Your task to perform on an android device: add a contact in the contacts app Image 0: 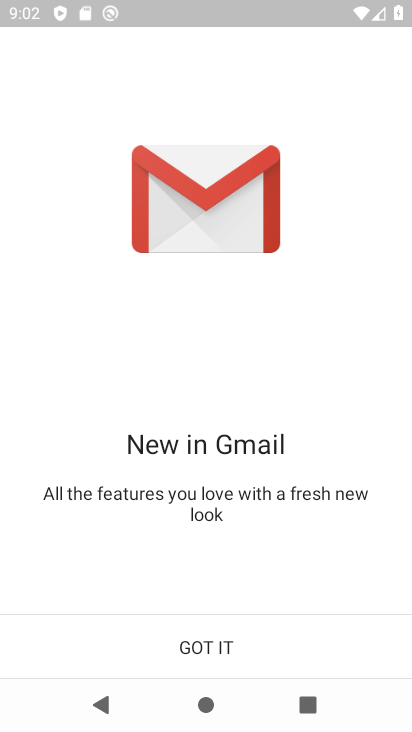
Step 0: click (327, 541)
Your task to perform on an android device: add a contact in the contacts app Image 1: 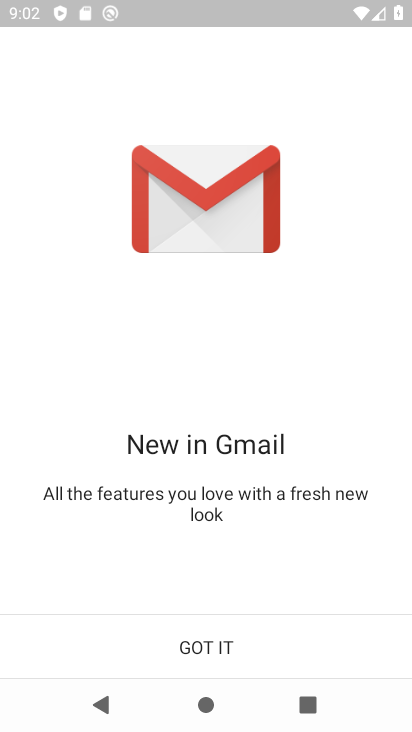
Step 1: click (203, 669)
Your task to perform on an android device: add a contact in the contacts app Image 2: 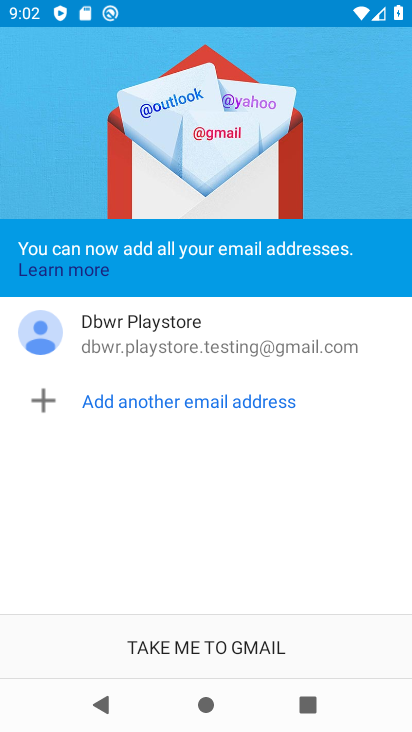
Step 2: press home button
Your task to perform on an android device: add a contact in the contacts app Image 3: 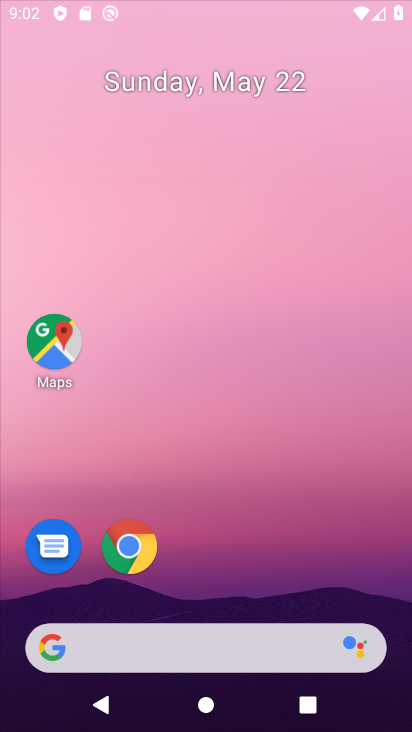
Step 3: drag from (207, 643) to (257, 35)
Your task to perform on an android device: add a contact in the contacts app Image 4: 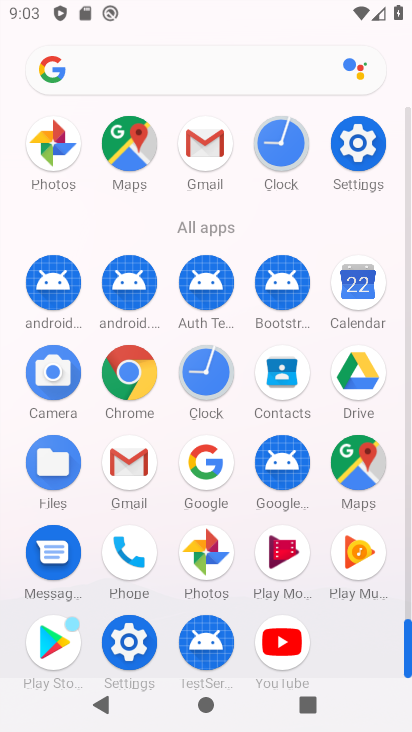
Step 4: click (273, 371)
Your task to perform on an android device: add a contact in the contacts app Image 5: 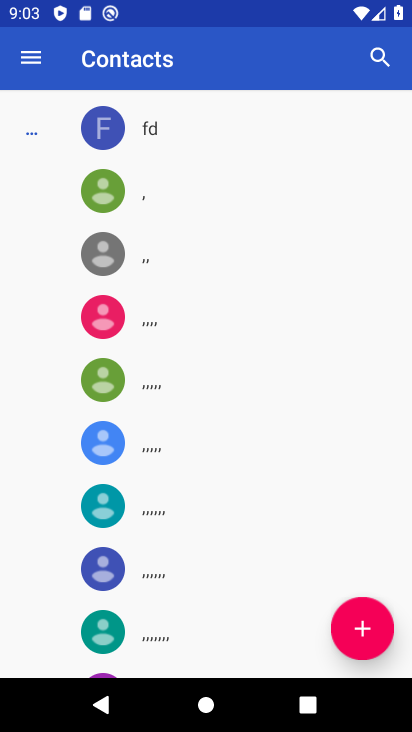
Step 5: drag from (190, 613) to (280, 172)
Your task to perform on an android device: add a contact in the contacts app Image 6: 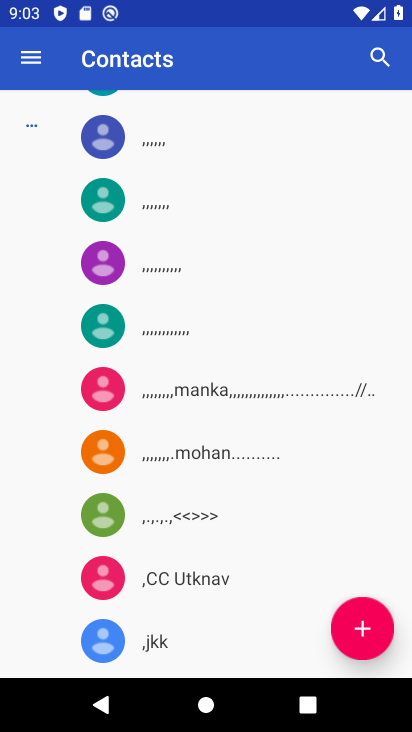
Step 6: click (361, 612)
Your task to perform on an android device: add a contact in the contacts app Image 7: 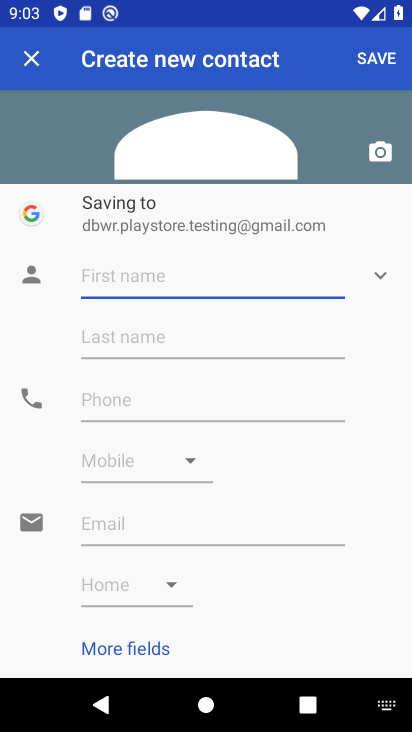
Step 7: click (156, 270)
Your task to perform on an android device: add a contact in the contacts app Image 8: 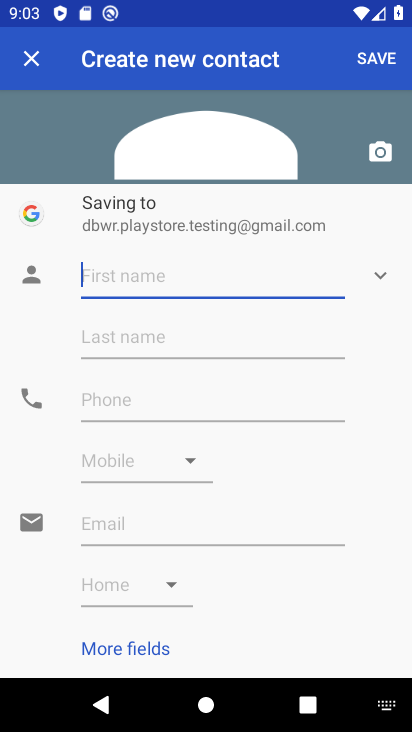
Step 8: type "bfjm"
Your task to perform on an android device: add a contact in the contacts app Image 9: 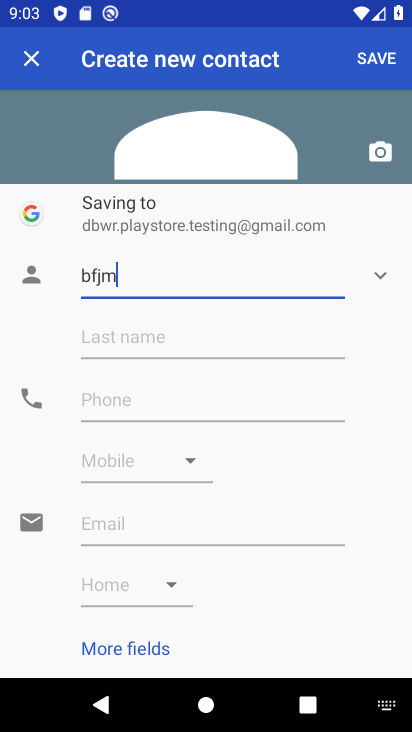
Step 9: click (370, 67)
Your task to perform on an android device: add a contact in the contacts app Image 10: 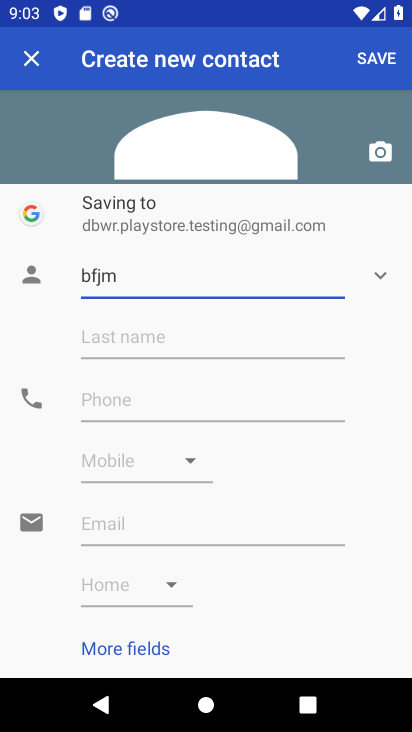
Step 10: task complete